Your task to perform on an android device: Add logitech g502 to the cart on walmart Image 0: 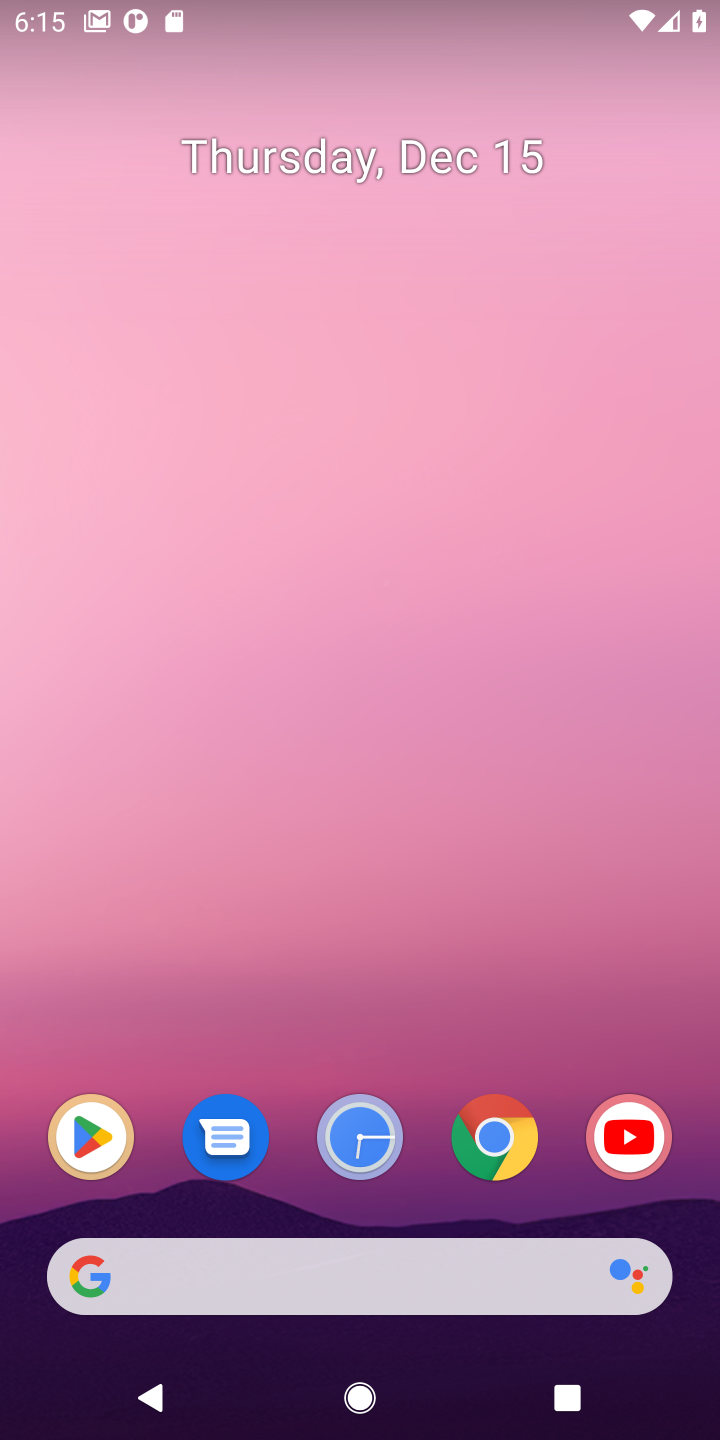
Step 0: drag from (352, 1269) to (354, 344)
Your task to perform on an android device: Add logitech g502 to the cart on walmart Image 1: 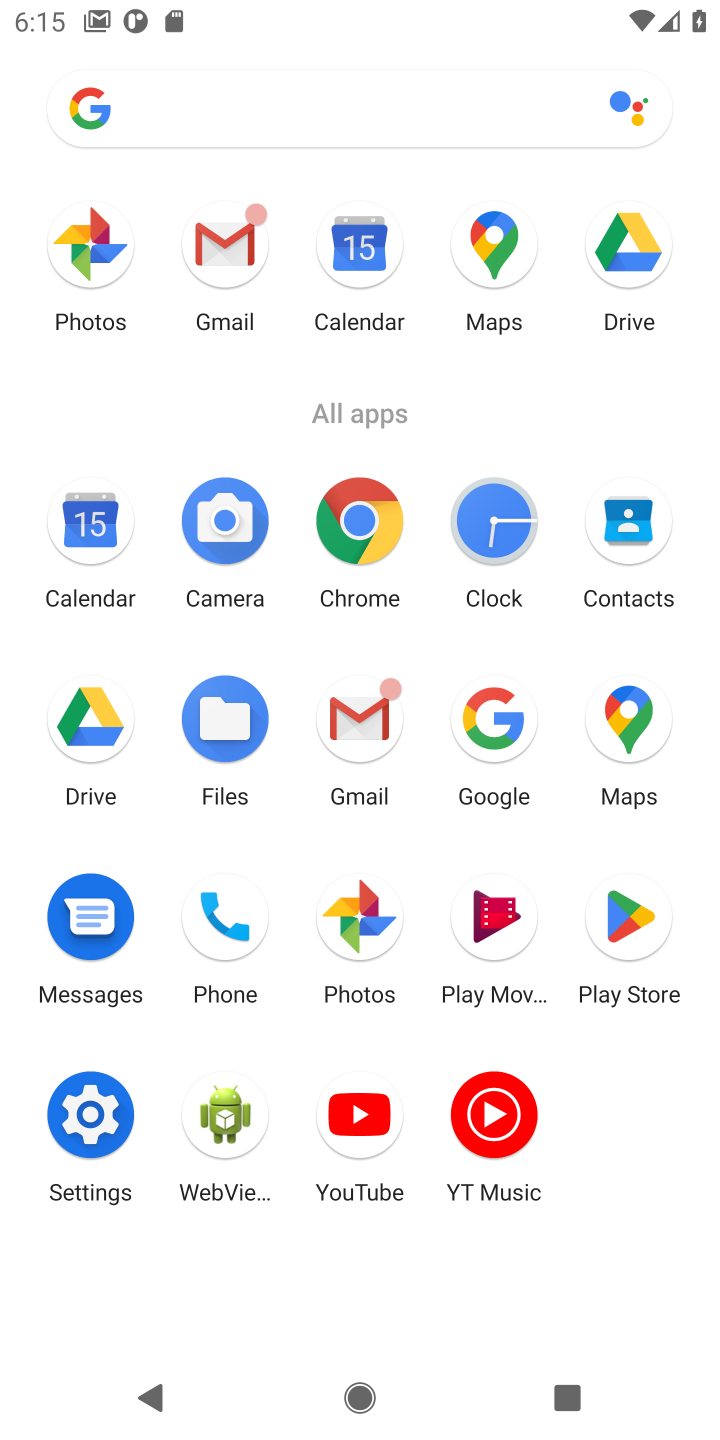
Step 1: click (503, 719)
Your task to perform on an android device: Add logitech g502 to the cart on walmart Image 2: 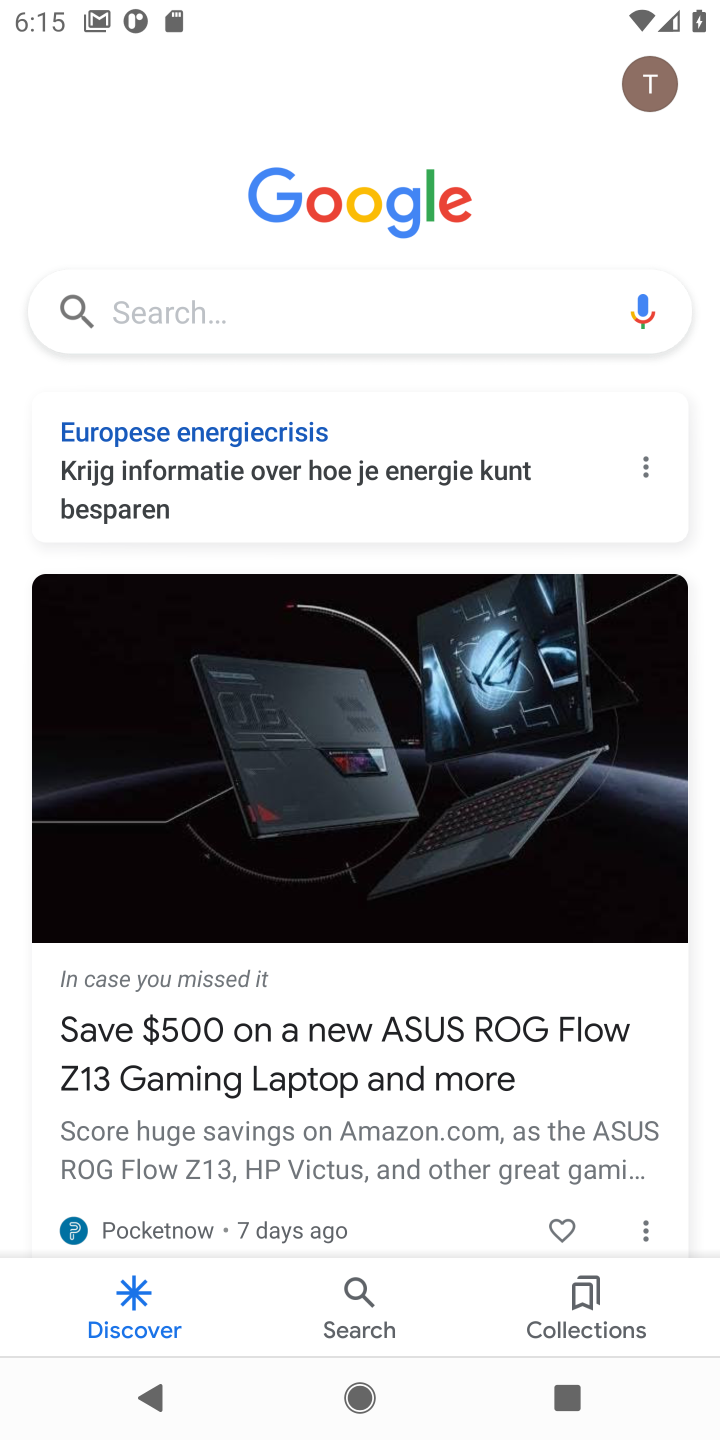
Step 2: click (220, 285)
Your task to perform on an android device: Add logitech g502 to the cart on walmart Image 3: 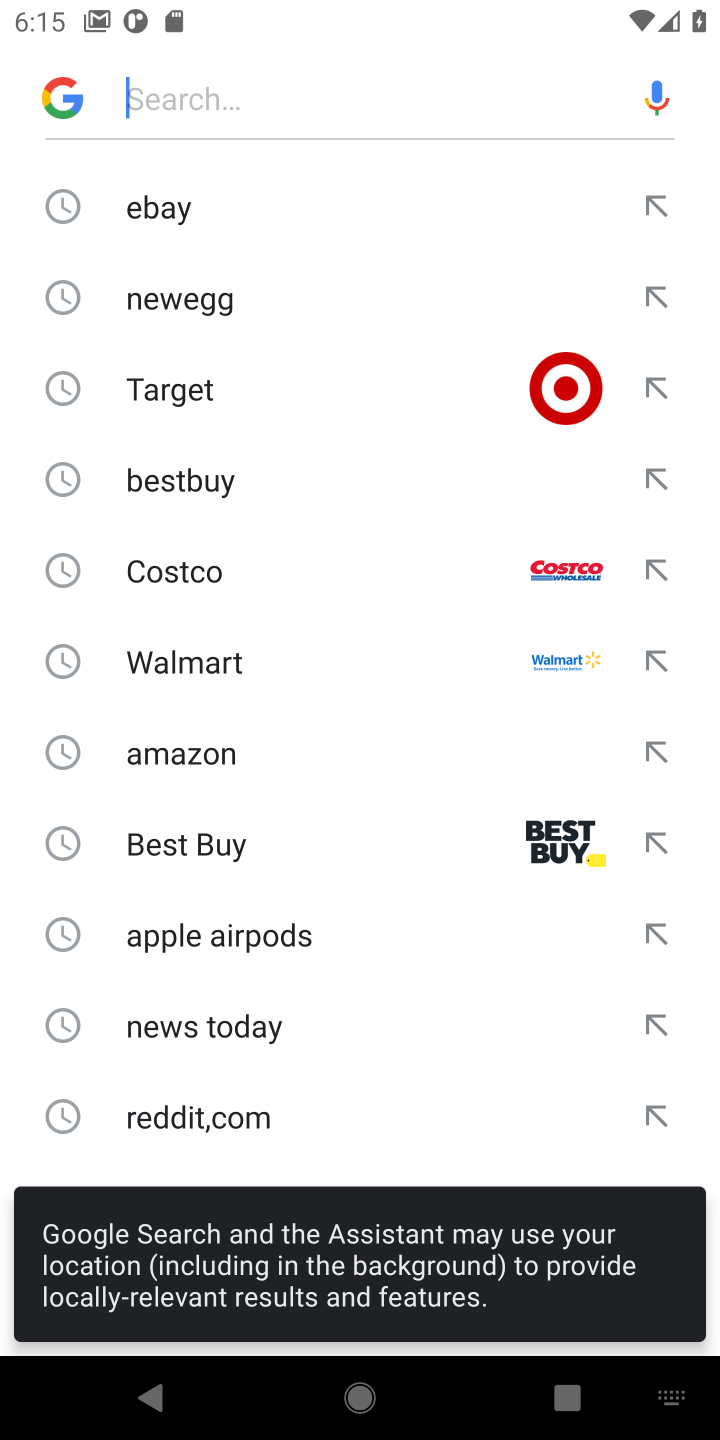
Step 3: click (179, 672)
Your task to perform on an android device: Add logitech g502 to the cart on walmart Image 4: 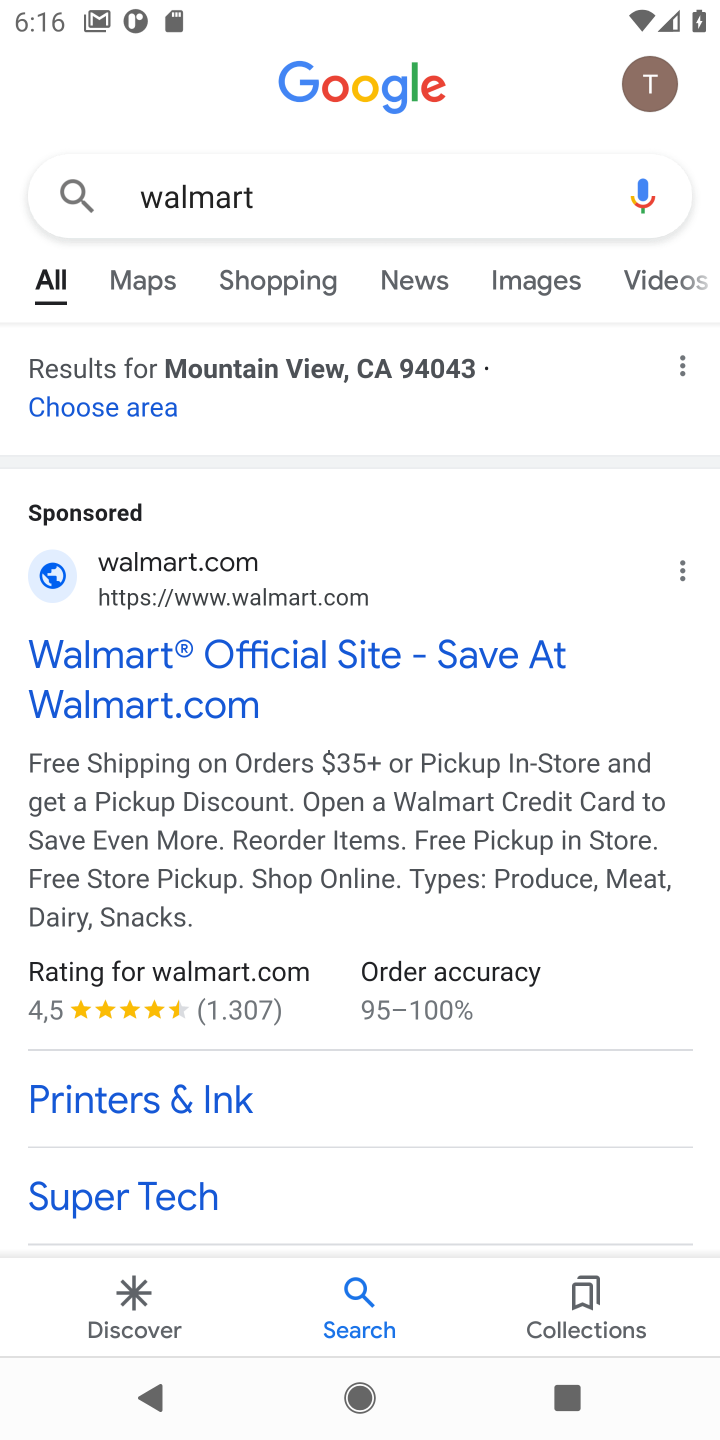
Step 4: click (179, 674)
Your task to perform on an android device: Add logitech g502 to the cart on walmart Image 5: 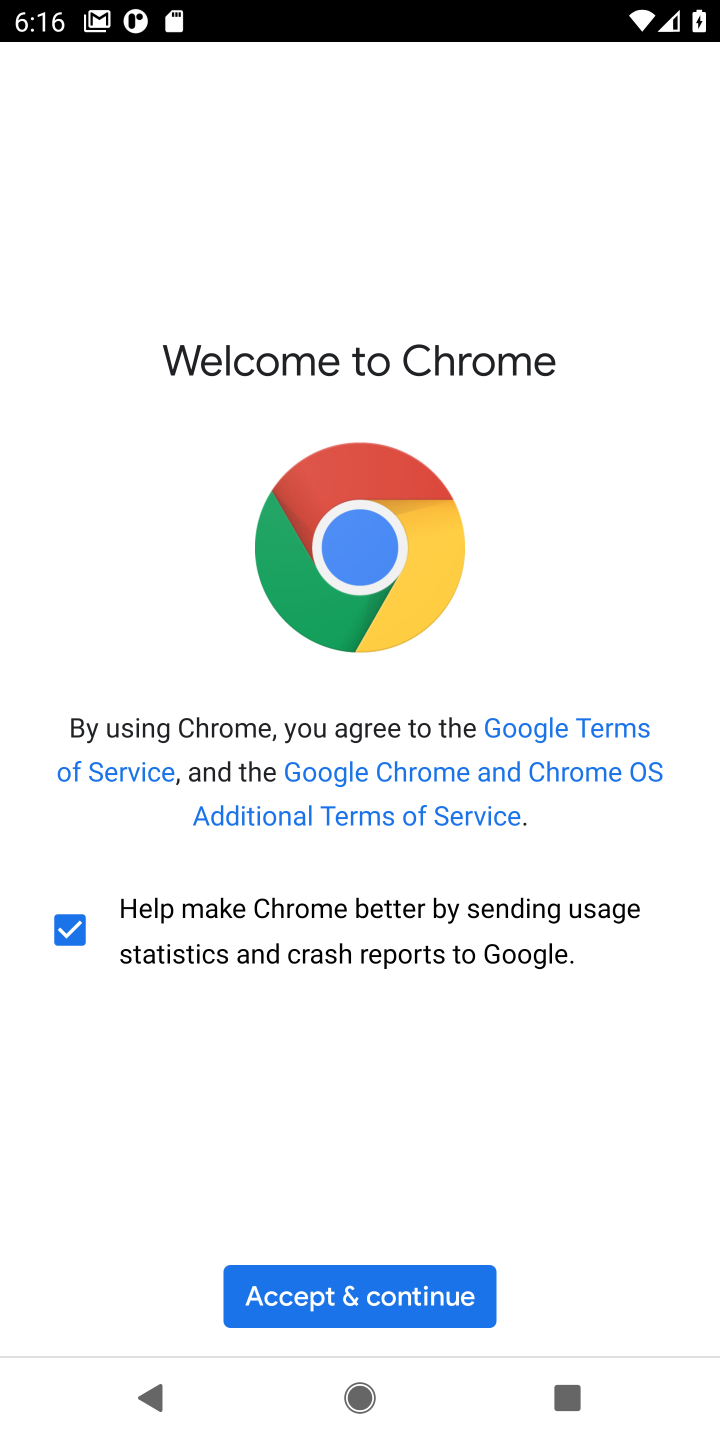
Step 5: click (361, 1303)
Your task to perform on an android device: Add logitech g502 to the cart on walmart Image 6: 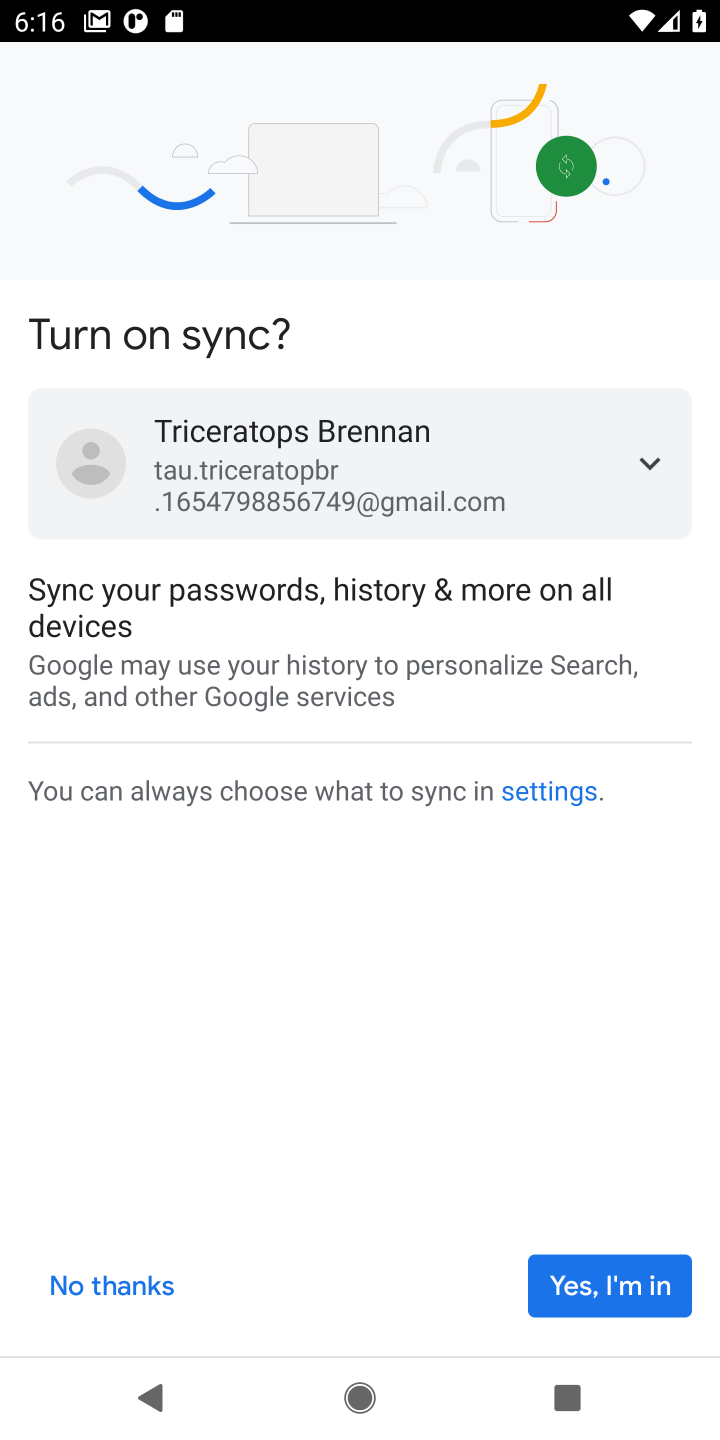
Step 6: click (554, 1296)
Your task to perform on an android device: Add logitech g502 to the cart on walmart Image 7: 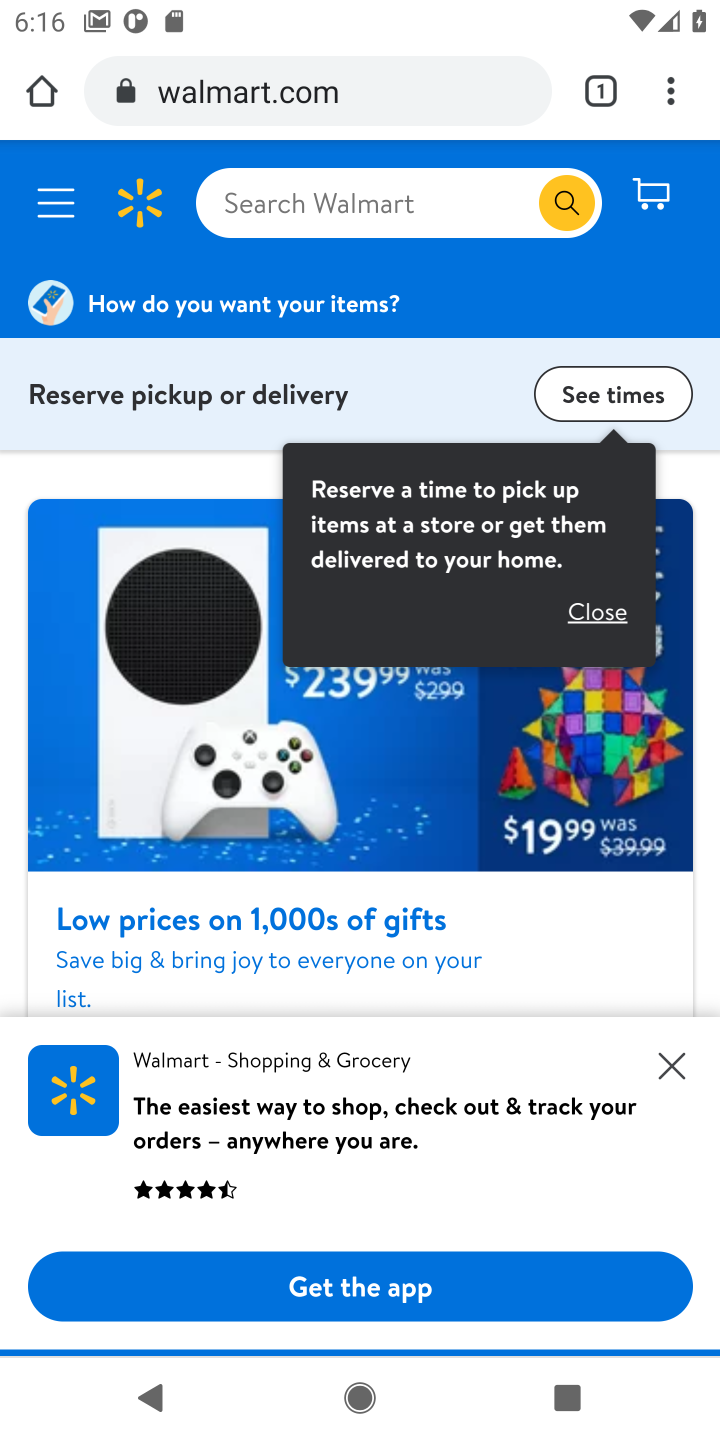
Step 7: click (230, 201)
Your task to perform on an android device: Add logitech g502 to the cart on walmart Image 8: 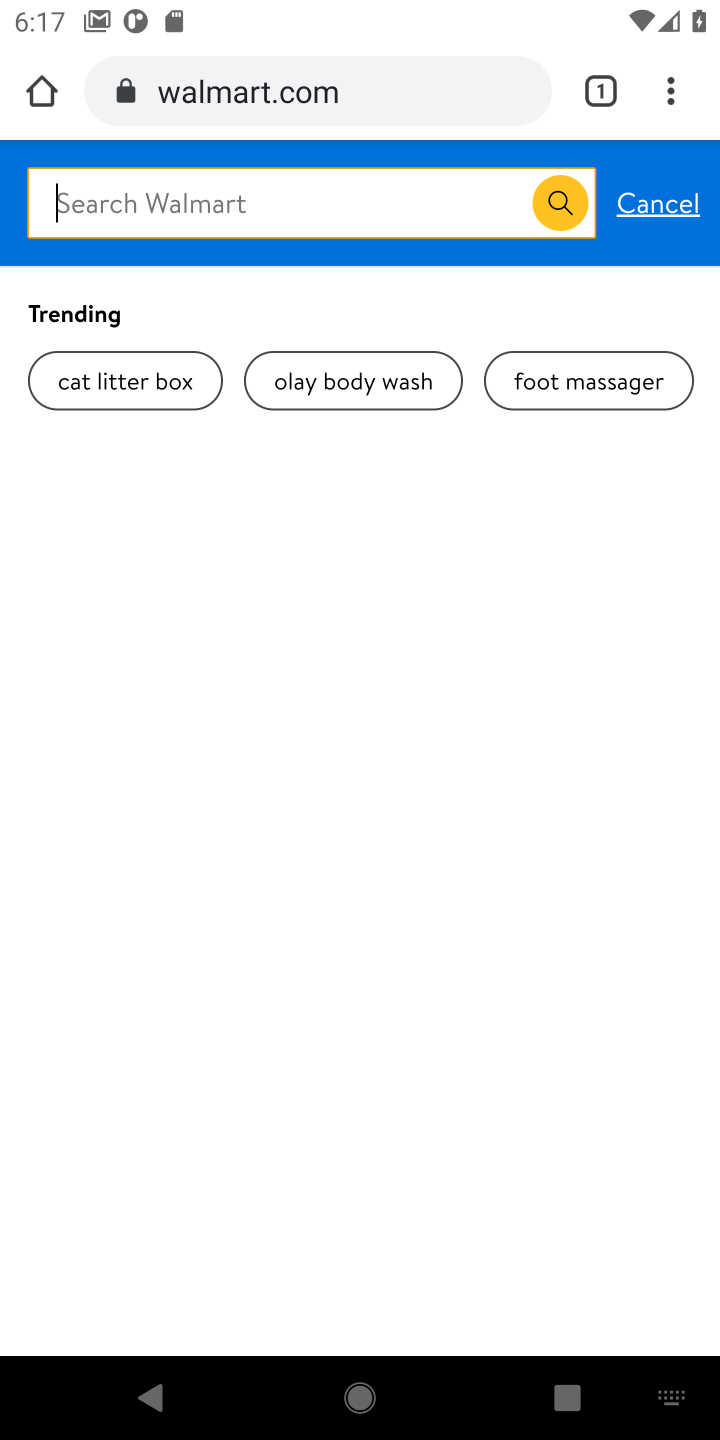
Step 8: type "logitech g502"
Your task to perform on an android device: Add logitech g502 to the cart on walmart Image 9: 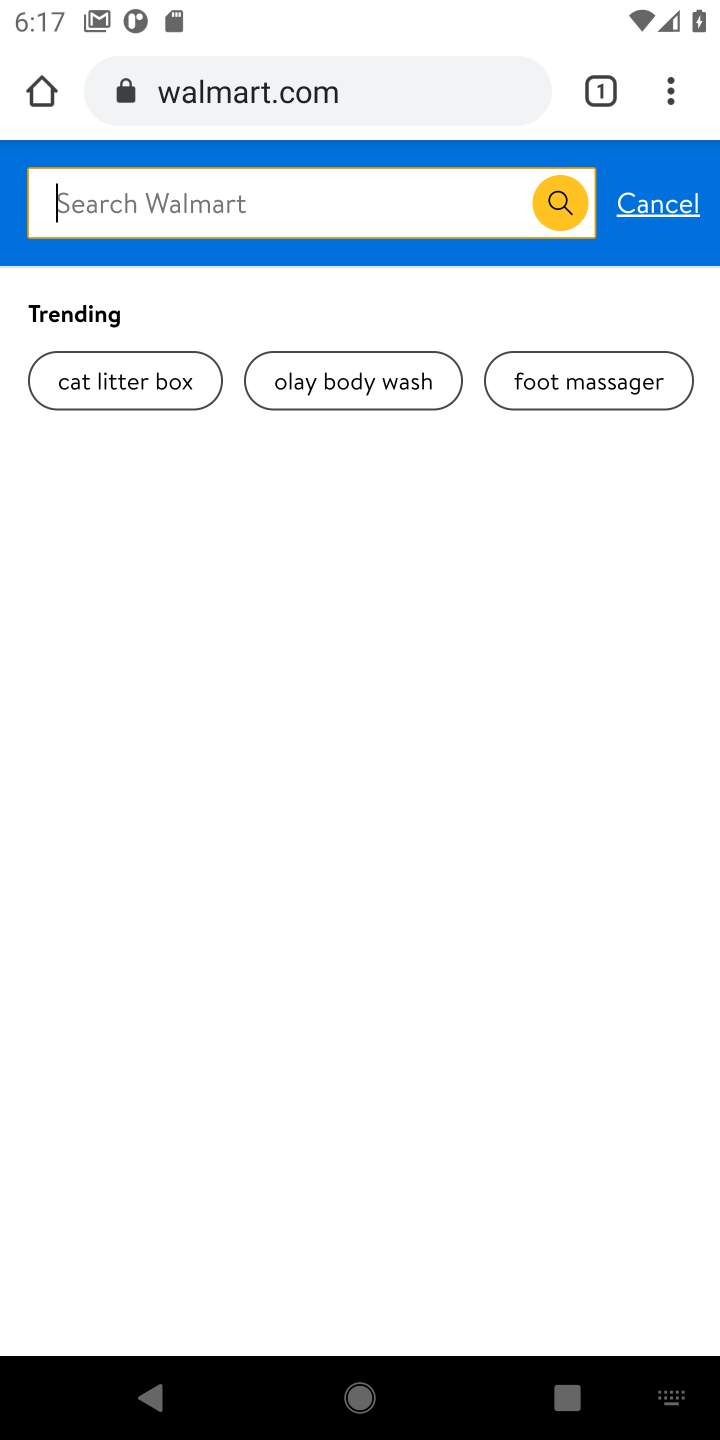
Step 9: click (572, 206)
Your task to perform on an android device: Add logitech g502 to the cart on walmart Image 10: 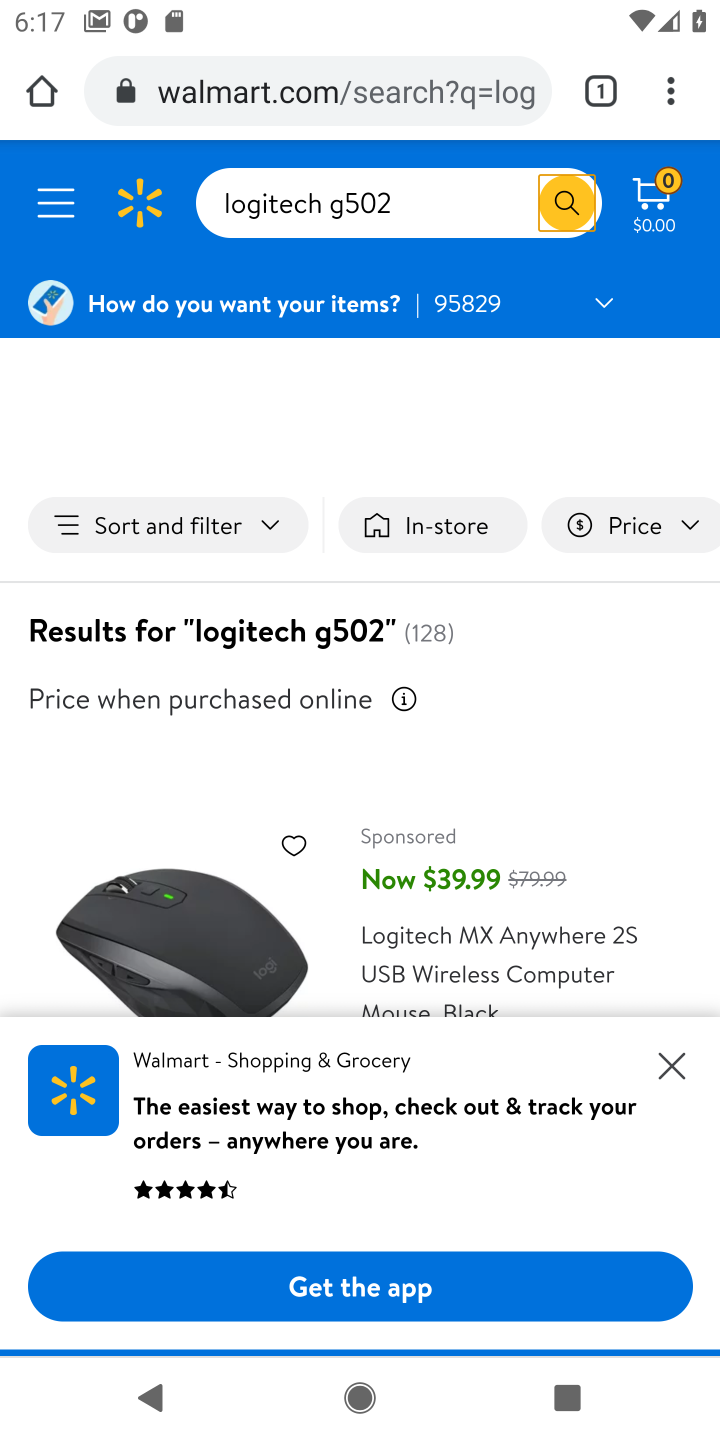
Step 10: click (668, 1067)
Your task to perform on an android device: Add logitech g502 to the cart on walmart Image 11: 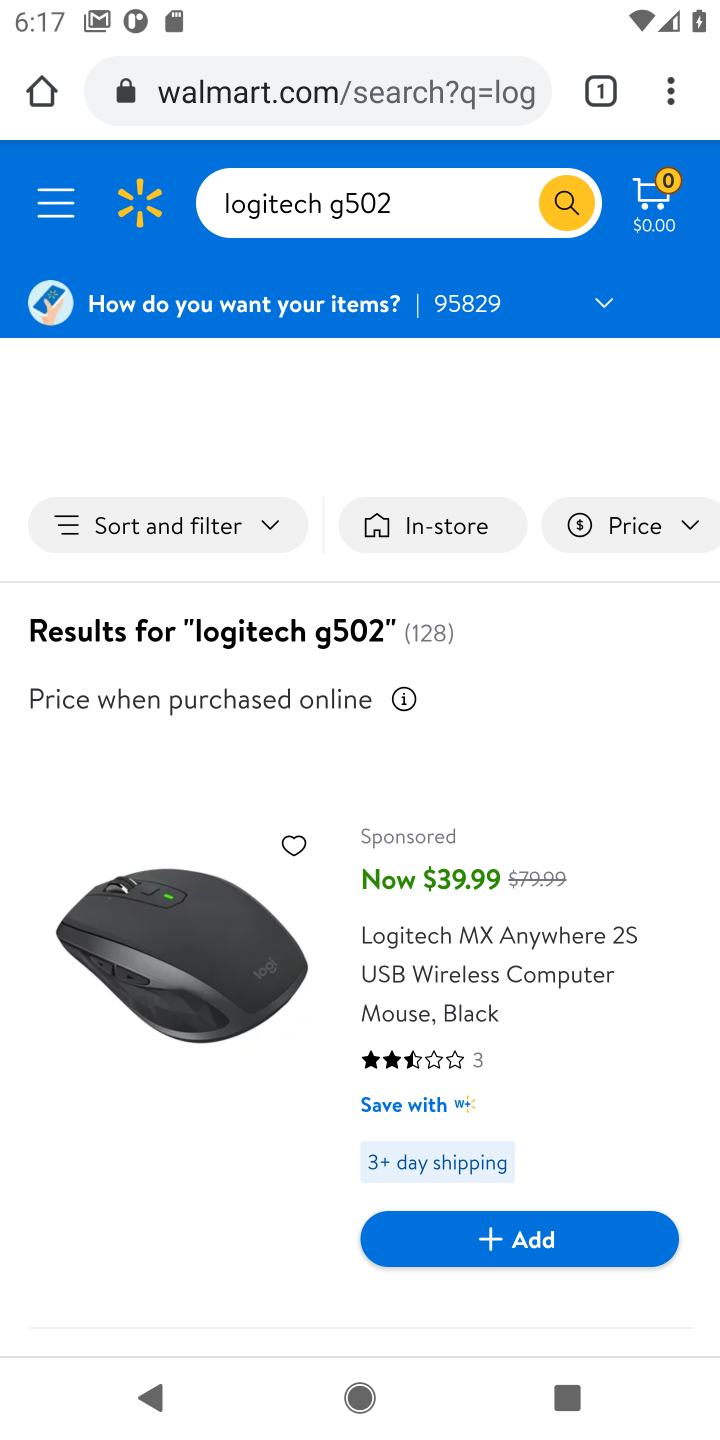
Step 11: task complete